Your task to perform on an android device: change timer sound Image 0: 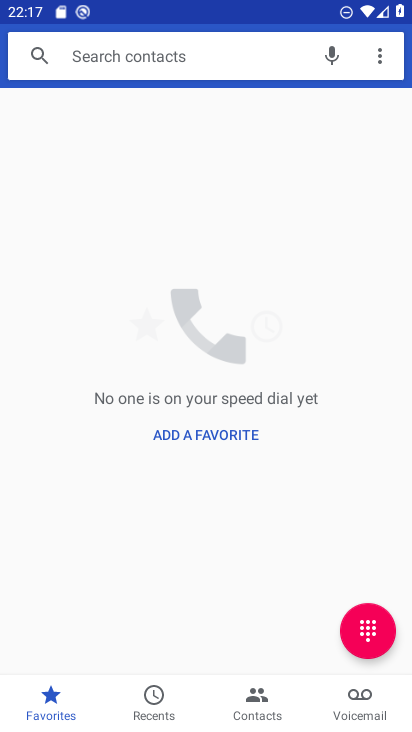
Step 0: press home button
Your task to perform on an android device: change timer sound Image 1: 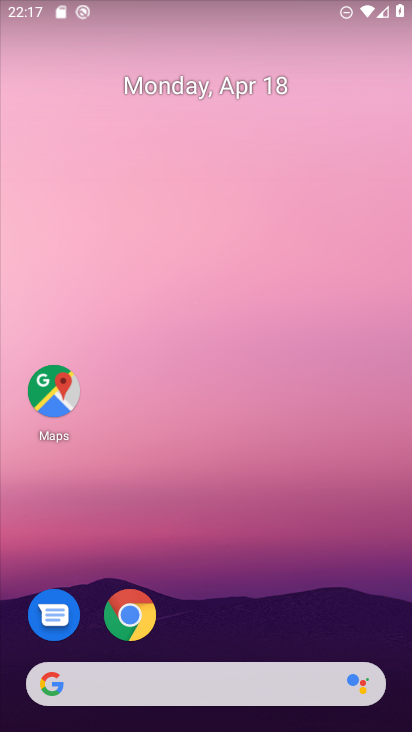
Step 1: drag from (351, 565) to (347, 12)
Your task to perform on an android device: change timer sound Image 2: 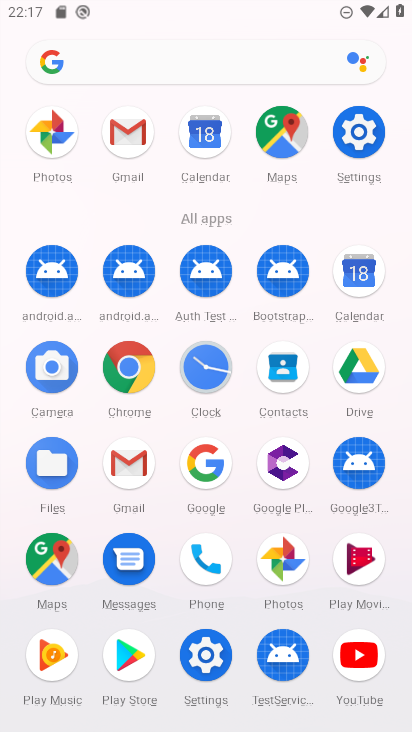
Step 2: click (201, 375)
Your task to perform on an android device: change timer sound Image 3: 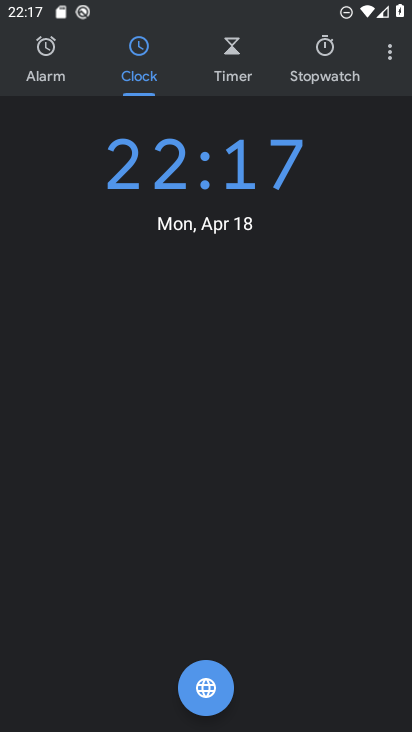
Step 3: click (390, 58)
Your task to perform on an android device: change timer sound Image 4: 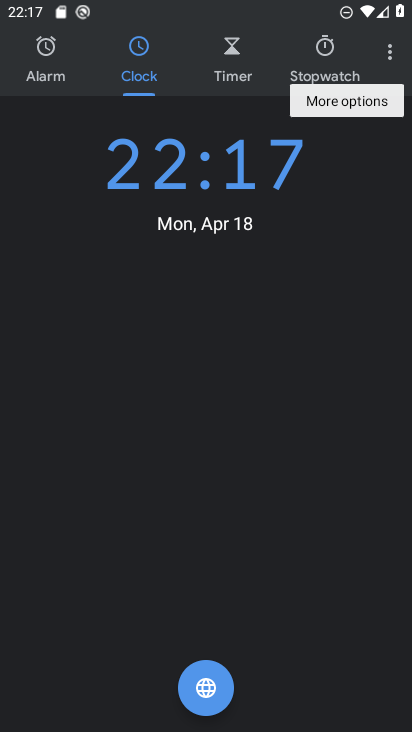
Step 4: click (390, 58)
Your task to perform on an android device: change timer sound Image 5: 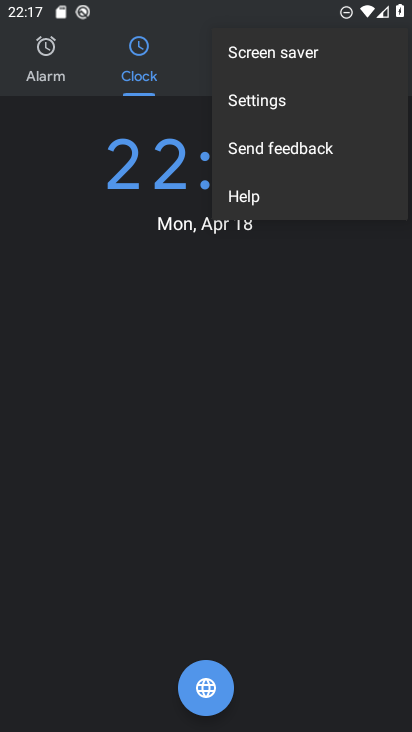
Step 5: click (286, 98)
Your task to perform on an android device: change timer sound Image 6: 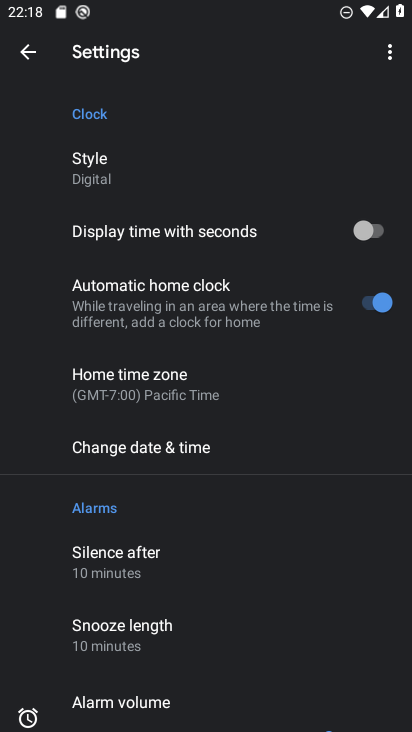
Step 6: drag from (241, 675) to (222, 189)
Your task to perform on an android device: change timer sound Image 7: 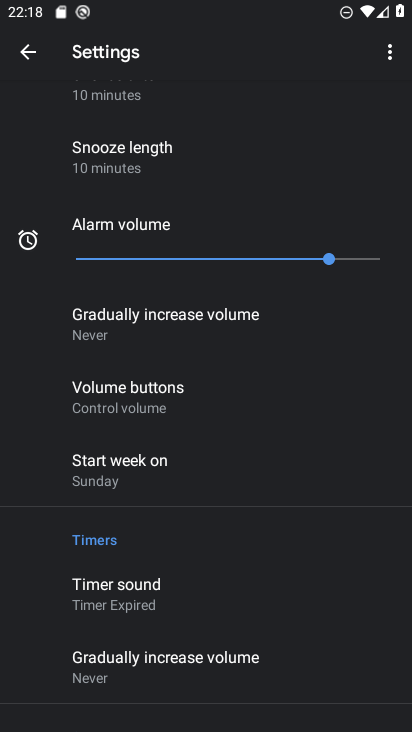
Step 7: drag from (256, 541) to (245, 149)
Your task to perform on an android device: change timer sound Image 8: 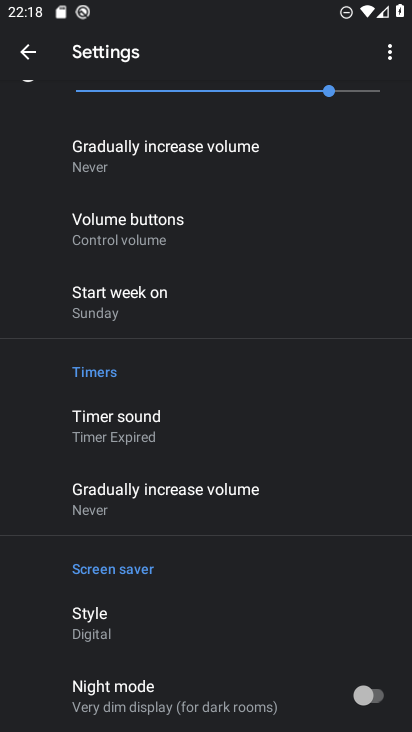
Step 8: click (108, 427)
Your task to perform on an android device: change timer sound Image 9: 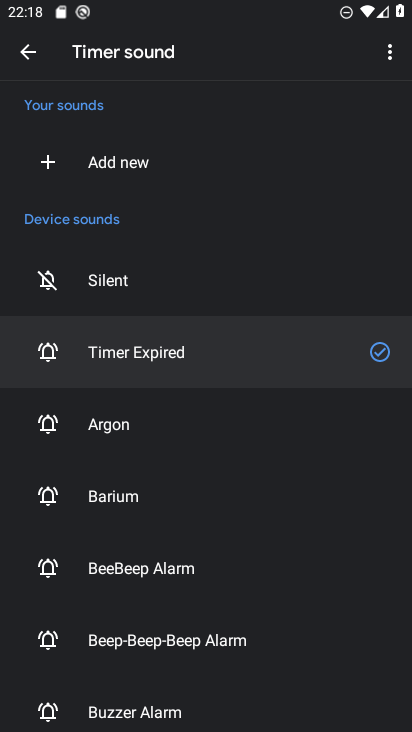
Step 9: click (99, 442)
Your task to perform on an android device: change timer sound Image 10: 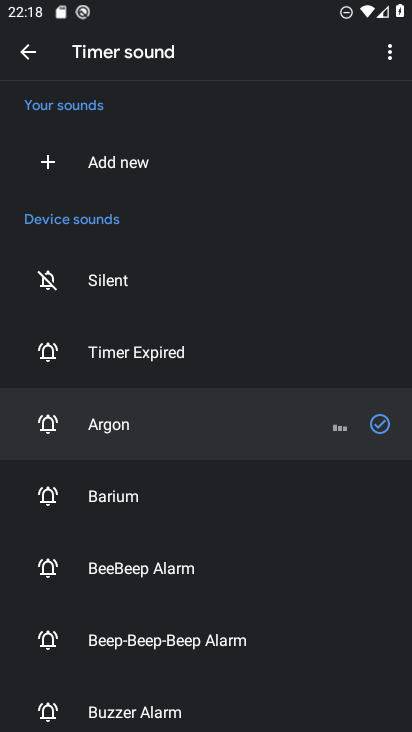
Step 10: task complete